Your task to perform on an android device: turn off airplane mode Image 0: 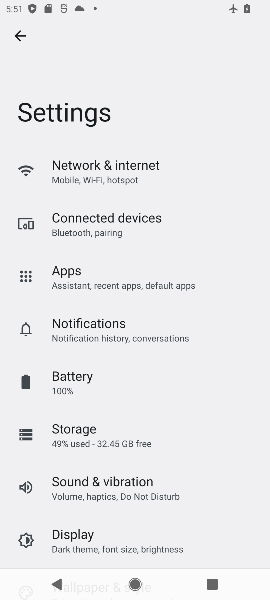
Step 0: click (80, 167)
Your task to perform on an android device: turn off airplane mode Image 1: 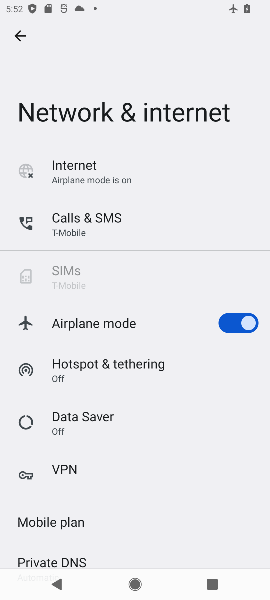
Step 1: click (229, 323)
Your task to perform on an android device: turn off airplane mode Image 2: 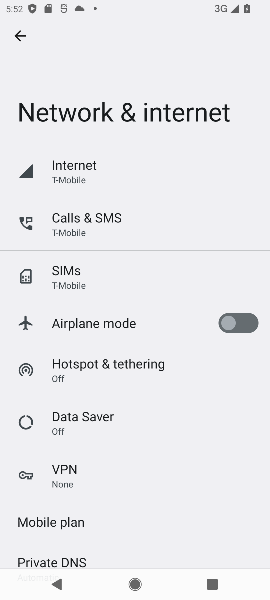
Step 2: task complete